Your task to perform on an android device: uninstall "Pandora - Music & Podcasts" Image 0: 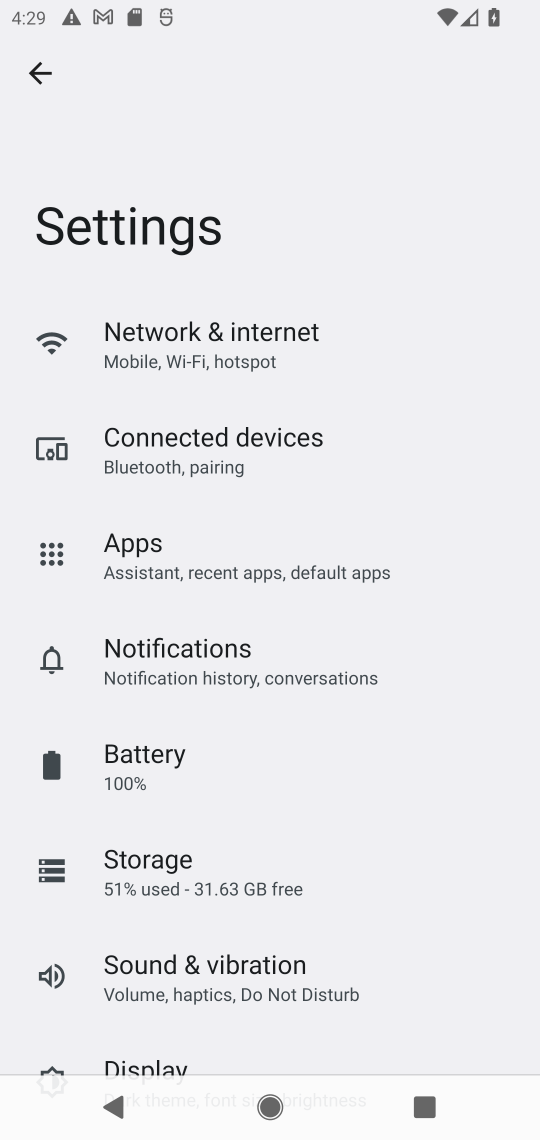
Step 0: press home button
Your task to perform on an android device: uninstall "Pandora - Music & Podcasts" Image 1: 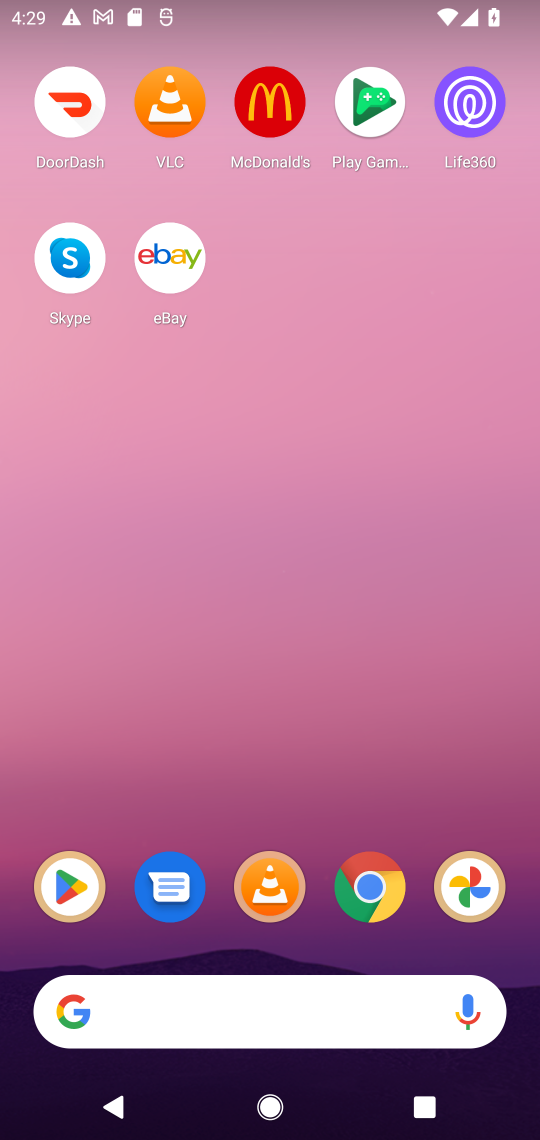
Step 1: click (80, 899)
Your task to perform on an android device: uninstall "Pandora - Music & Podcasts" Image 2: 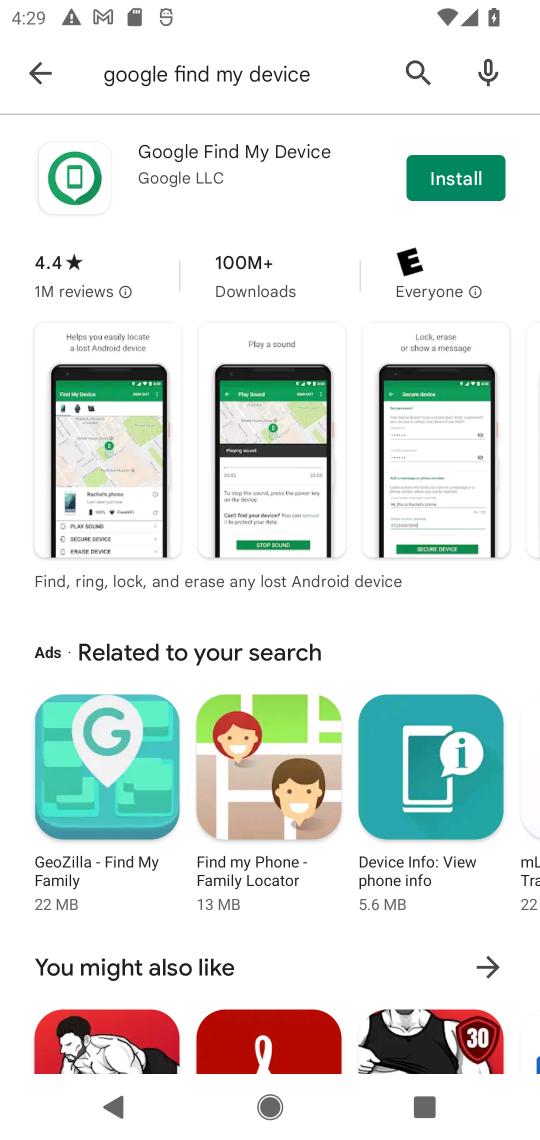
Step 2: click (33, 67)
Your task to perform on an android device: uninstall "Pandora - Music & Podcasts" Image 3: 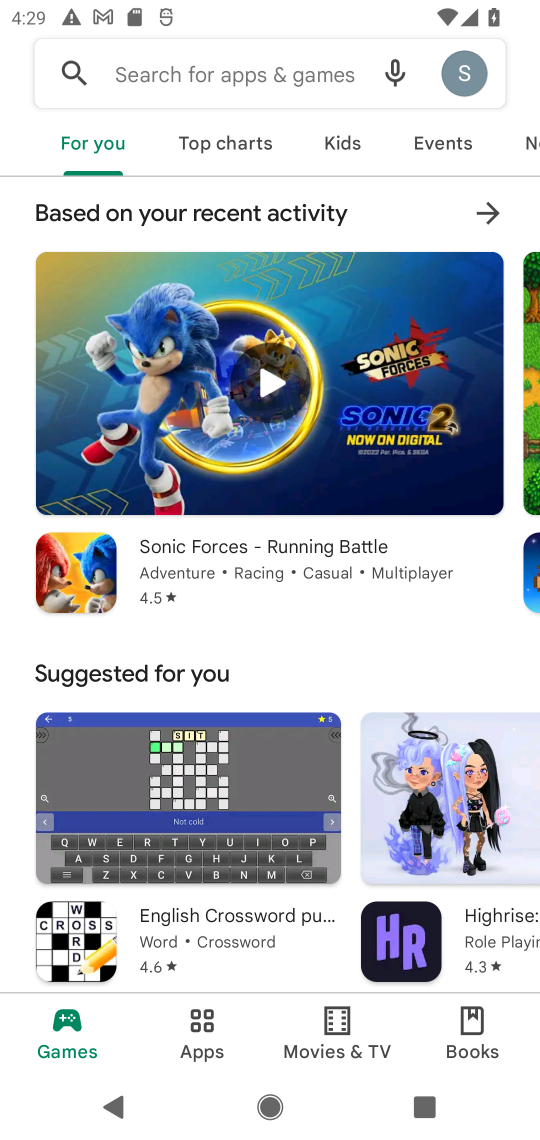
Step 3: click (197, 74)
Your task to perform on an android device: uninstall "Pandora - Music & Podcasts" Image 4: 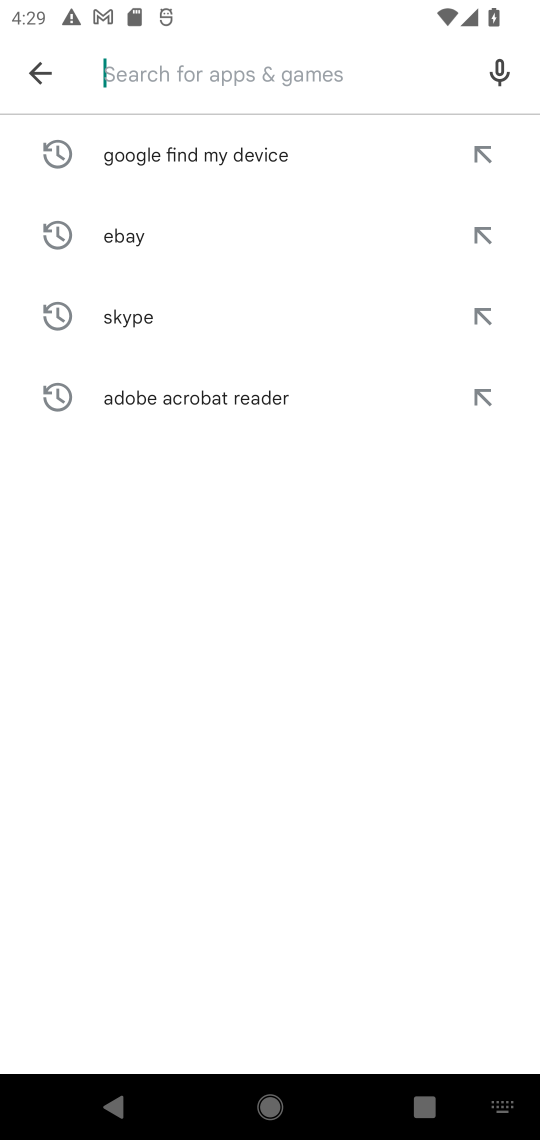
Step 4: type "pandora"
Your task to perform on an android device: uninstall "Pandora - Music & Podcasts" Image 5: 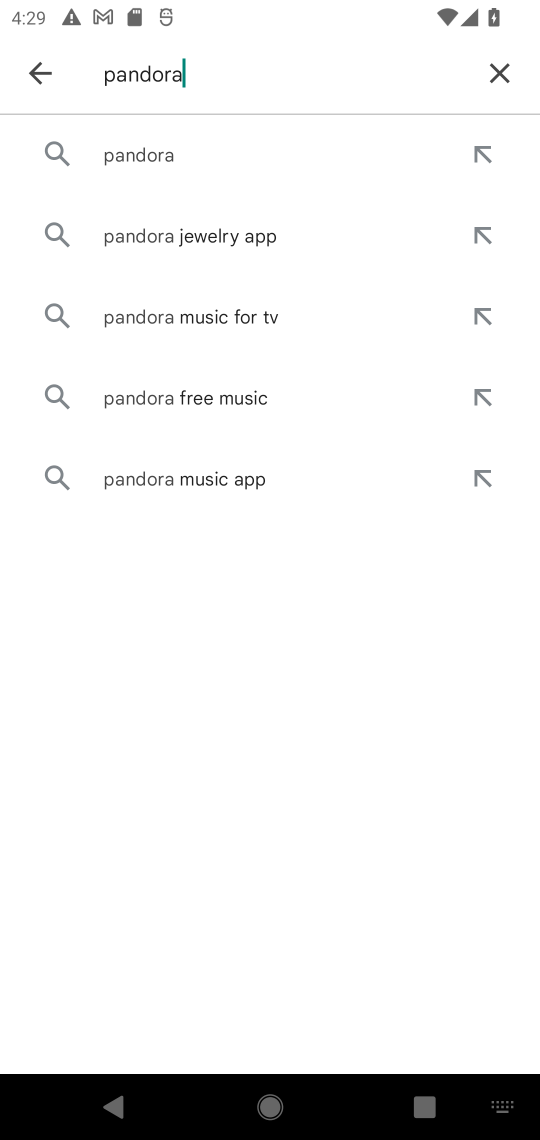
Step 5: click (212, 156)
Your task to perform on an android device: uninstall "Pandora - Music & Podcasts" Image 6: 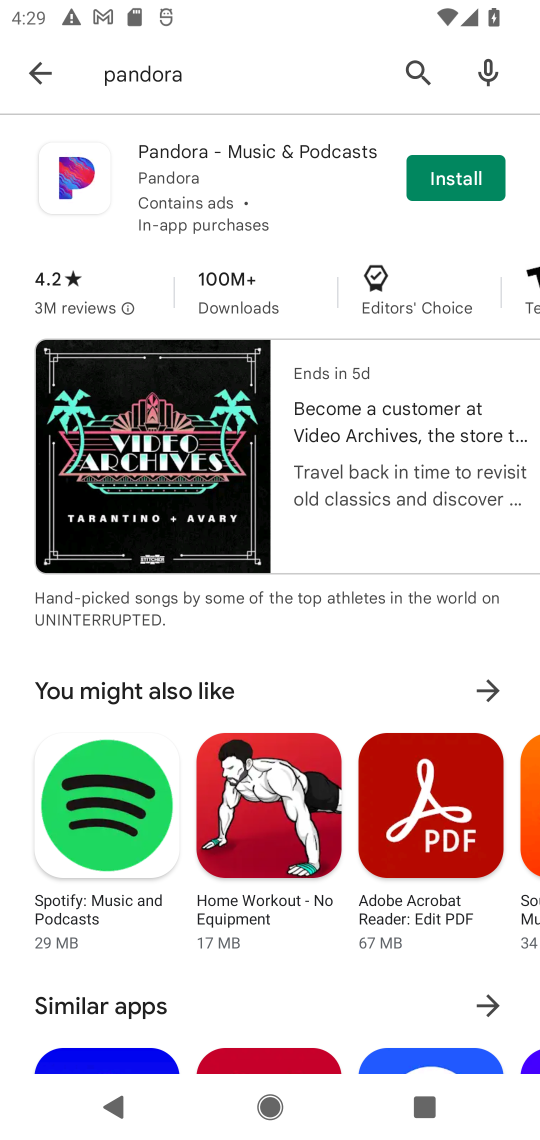
Step 6: task complete